Your task to perform on an android device: Go to Google maps Image 0: 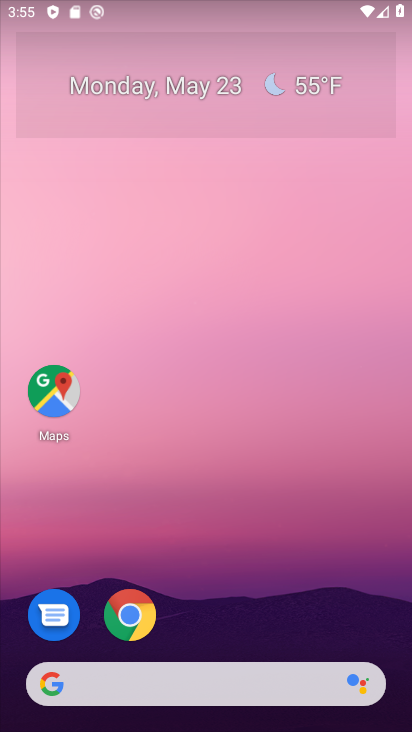
Step 0: drag from (367, 604) to (356, 226)
Your task to perform on an android device: Go to Google maps Image 1: 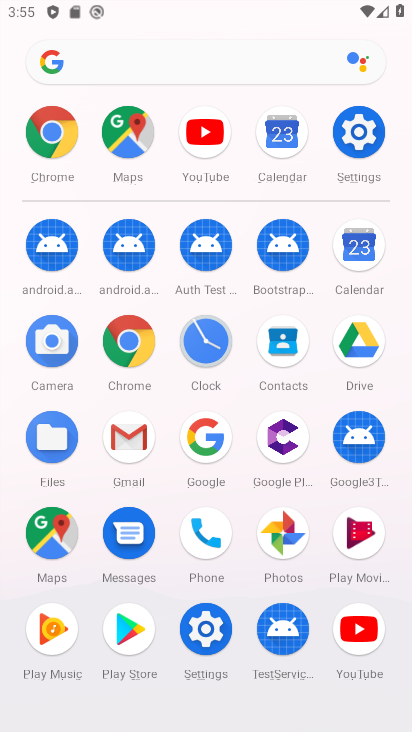
Step 1: click (52, 536)
Your task to perform on an android device: Go to Google maps Image 2: 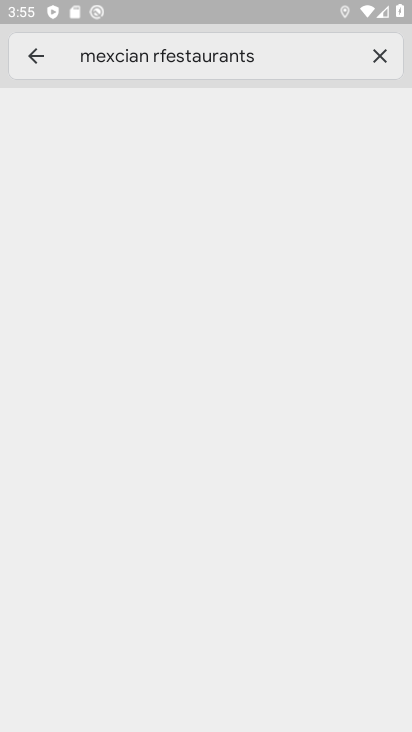
Step 2: click (38, 45)
Your task to perform on an android device: Go to Google maps Image 3: 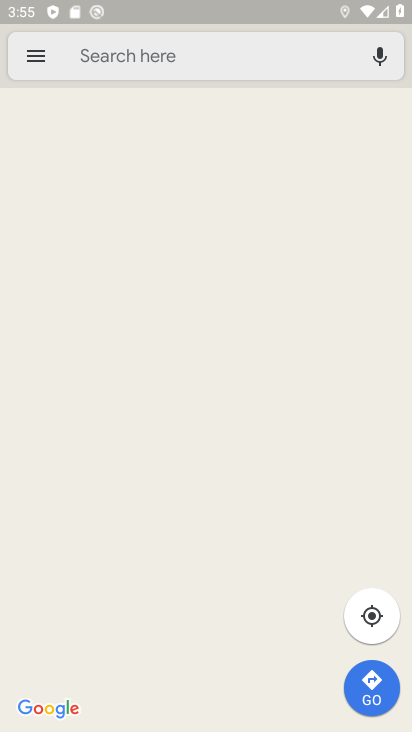
Step 3: task complete